Your task to perform on an android device: Open internet settings Image 0: 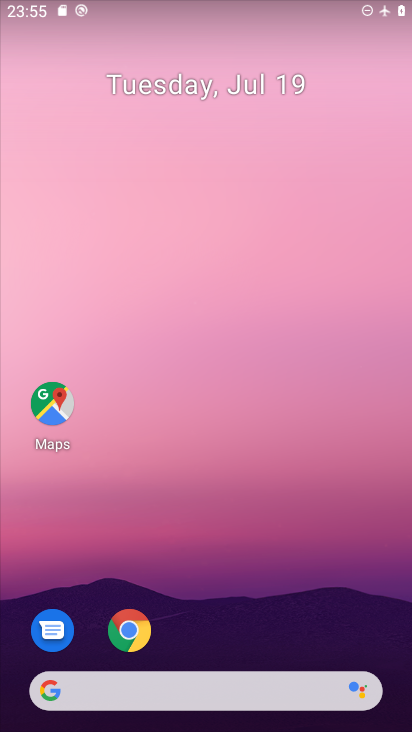
Step 0: drag from (204, 622) to (206, 248)
Your task to perform on an android device: Open internet settings Image 1: 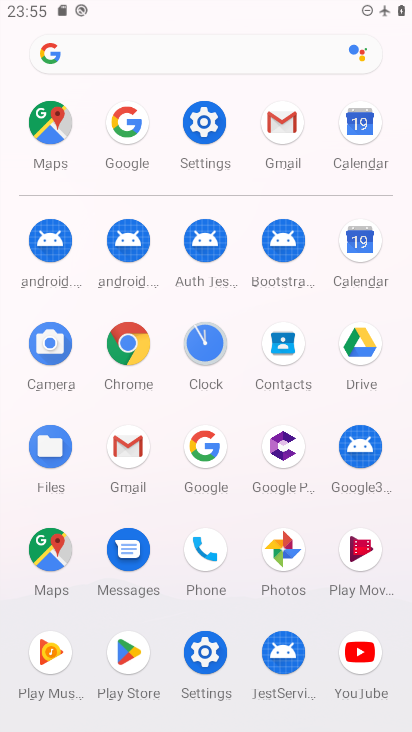
Step 1: click (196, 136)
Your task to perform on an android device: Open internet settings Image 2: 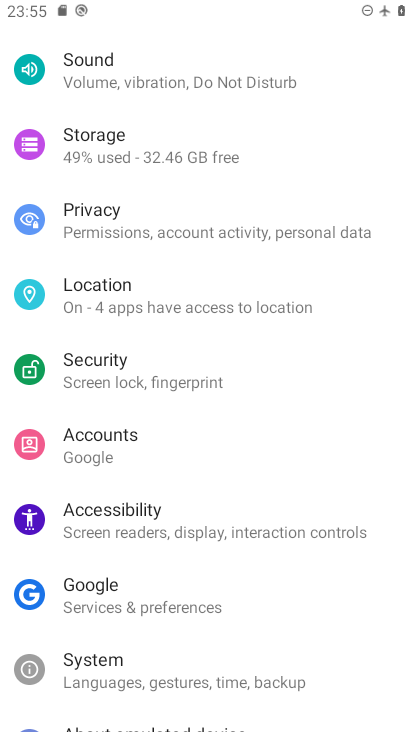
Step 2: drag from (246, 268) to (250, 583)
Your task to perform on an android device: Open internet settings Image 3: 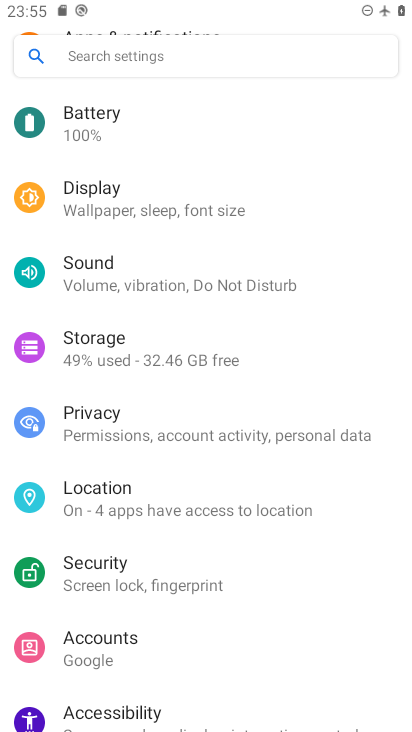
Step 3: drag from (159, 195) to (192, 531)
Your task to perform on an android device: Open internet settings Image 4: 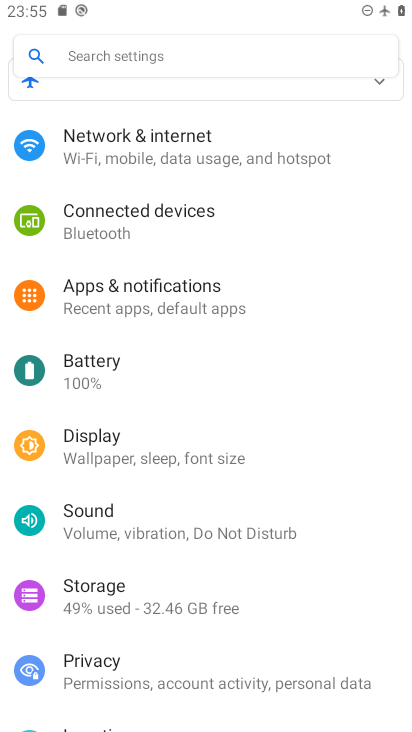
Step 4: click (140, 161)
Your task to perform on an android device: Open internet settings Image 5: 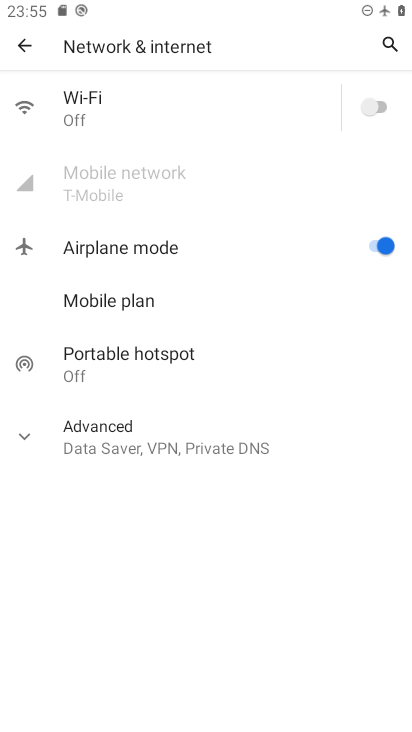
Step 5: task complete